Your task to perform on an android device: Go to eBay Image 0: 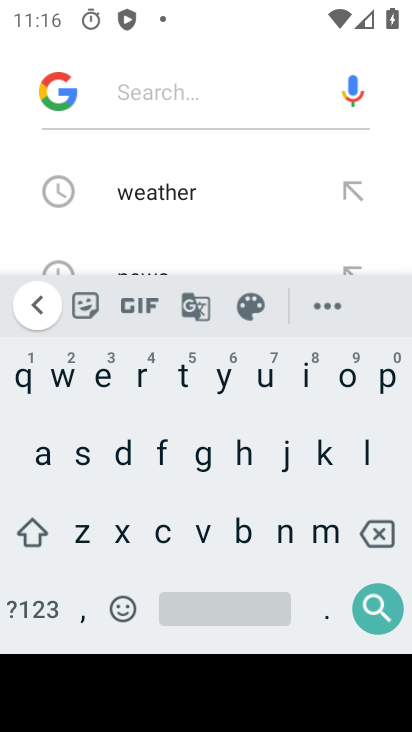
Step 0: press back button
Your task to perform on an android device: Go to eBay Image 1: 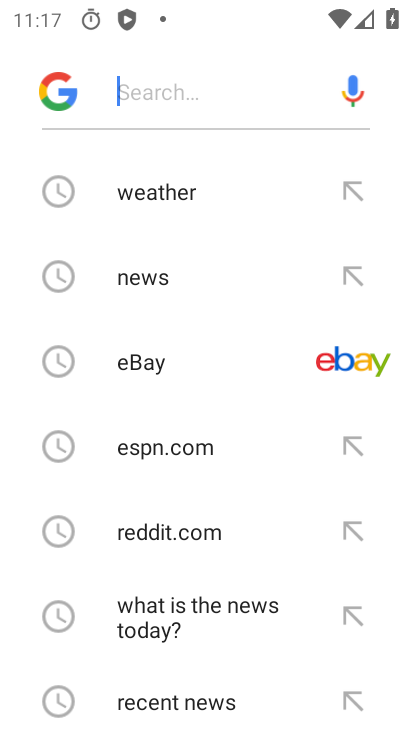
Step 1: click (293, 366)
Your task to perform on an android device: Go to eBay Image 2: 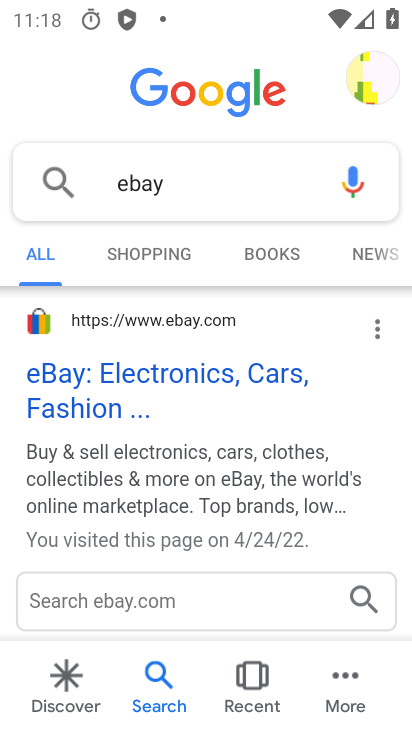
Step 2: click (126, 390)
Your task to perform on an android device: Go to eBay Image 3: 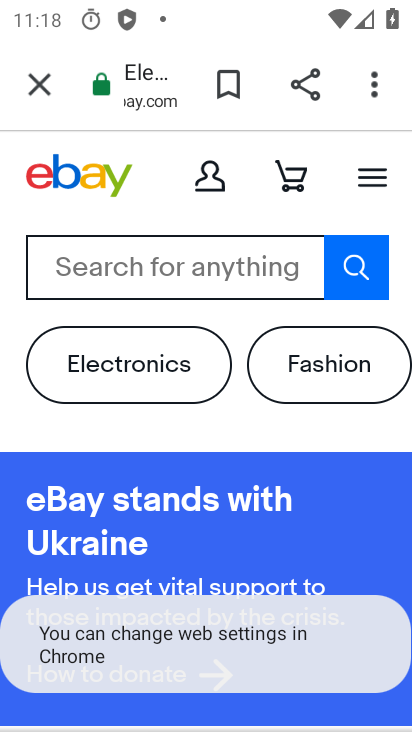
Step 3: task complete